Your task to perform on an android device: Go to network settings Image 0: 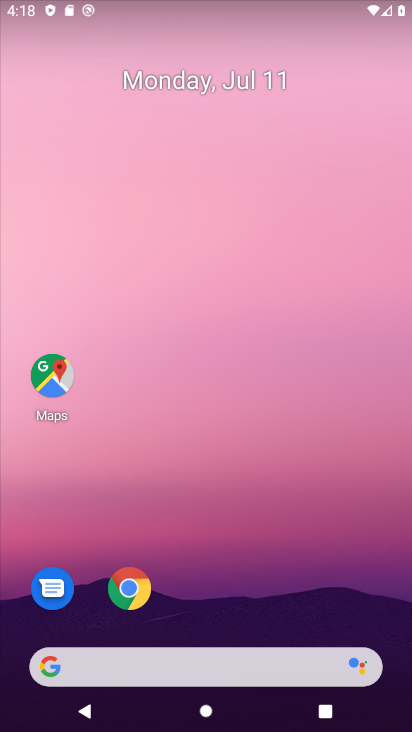
Step 0: drag from (264, 652) to (127, 306)
Your task to perform on an android device: Go to network settings Image 1: 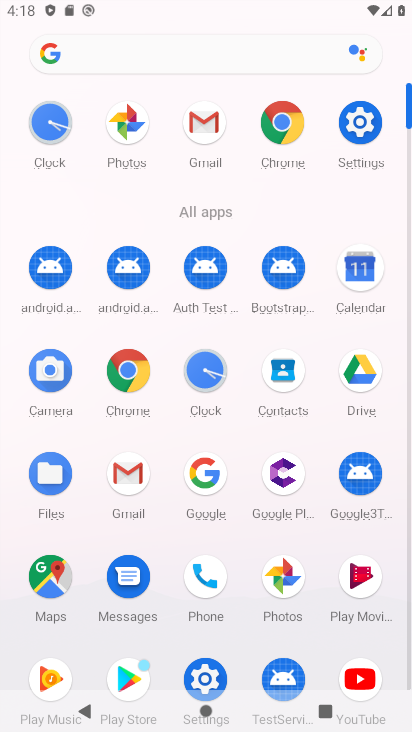
Step 1: click (370, 118)
Your task to perform on an android device: Go to network settings Image 2: 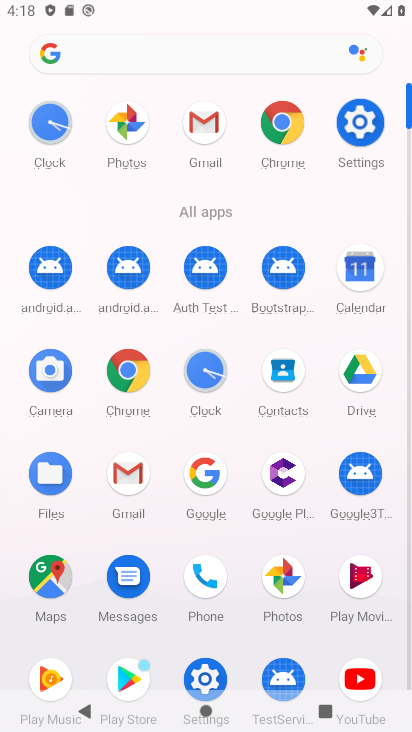
Step 2: click (370, 118)
Your task to perform on an android device: Go to network settings Image 3: 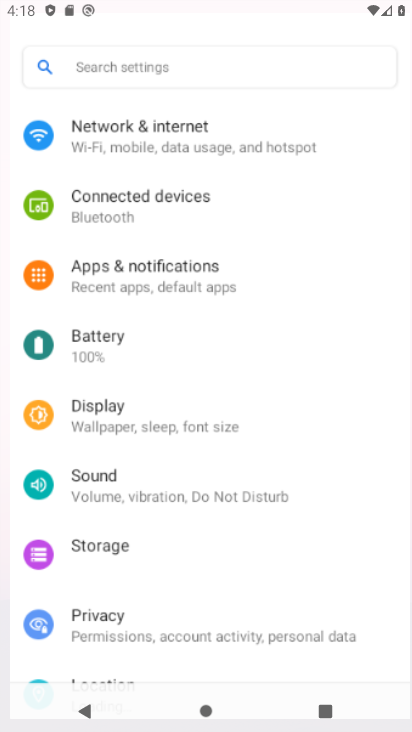
Step 3: click (370, 122)
Your task to perform on an android device: Go to network settings Image 4: 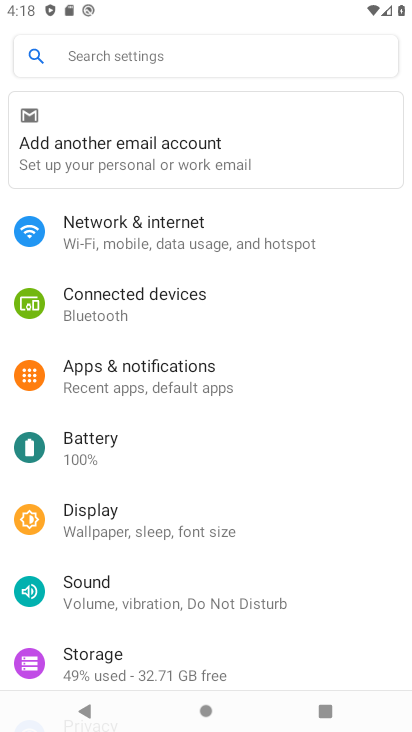
Step 4: click (152, 230)
Your task to perform on an android device: Go to network settings Image 5: 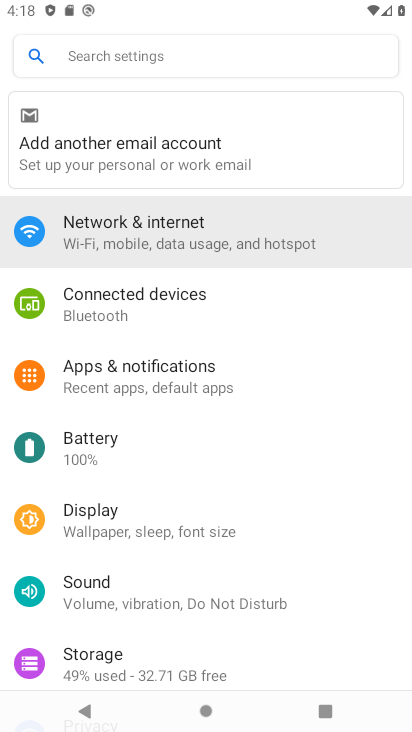
Step 5: click (152, 228)
Your task to perform on an android device: Go to network settings Image 6: 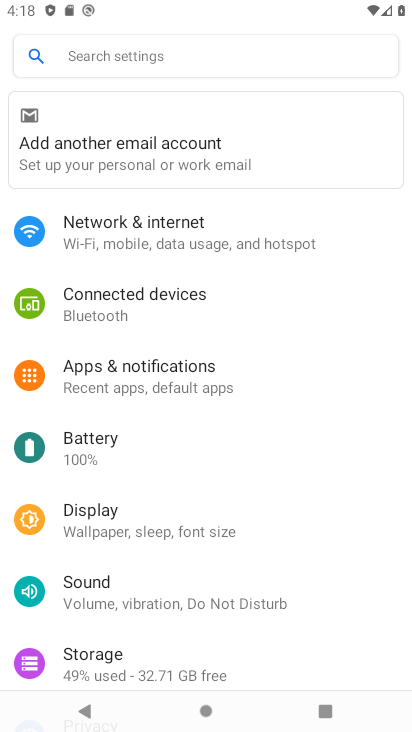
Step 6: click (152, 228)
Your task to perform on an android device: Go to network settings Image 7: 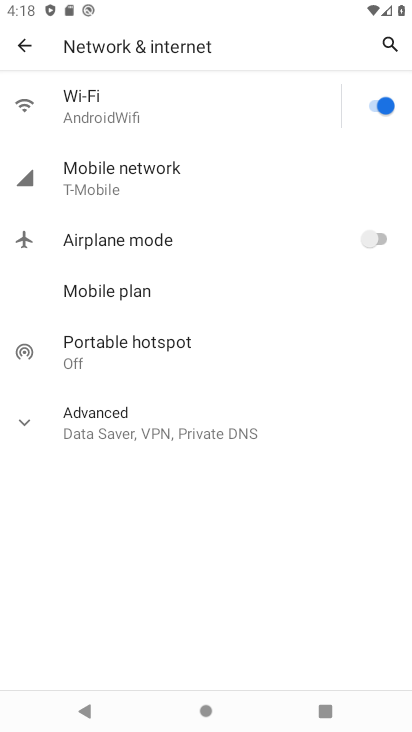
Step 7: task complete